Your task to perform on an android device: Open Google Maps Image 0: 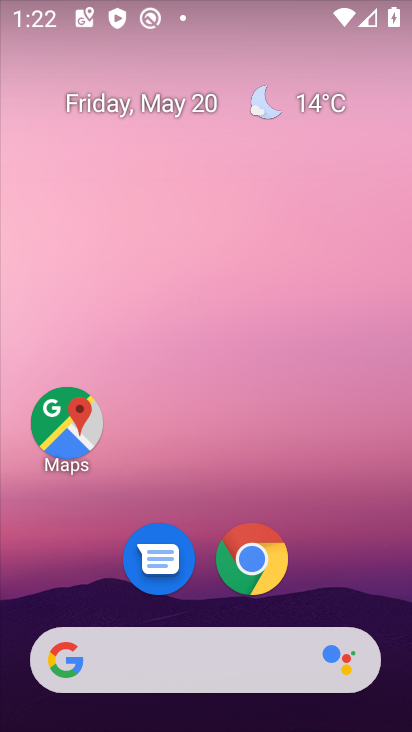
Step 0: click (61, 436)
Your task to perform on an android device: Open Google Maps Image 1: 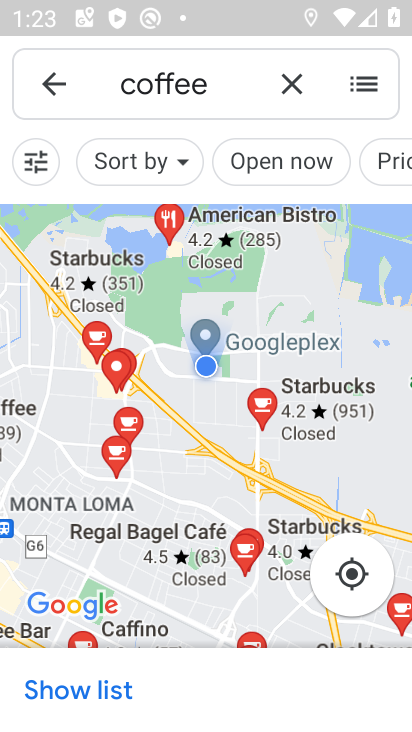
Step 1: task complete